Your task to perform on an android device: Search for seafood restaurants on Google Maps Image 0: 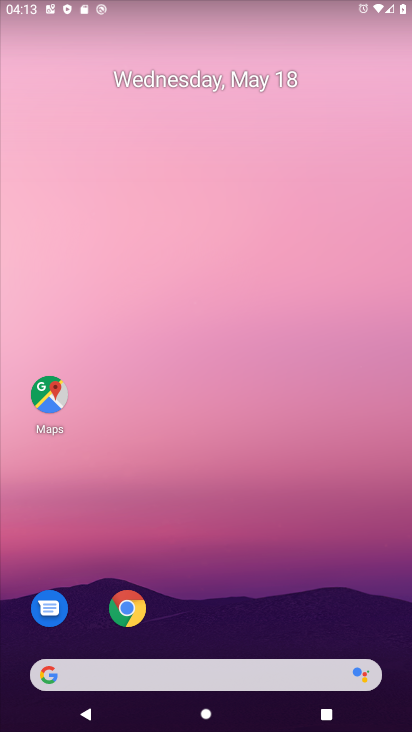
Step 0: click (57, 392)
Your task to perform on an android device: Search for seafood restaurants on Google Maps Image 1: 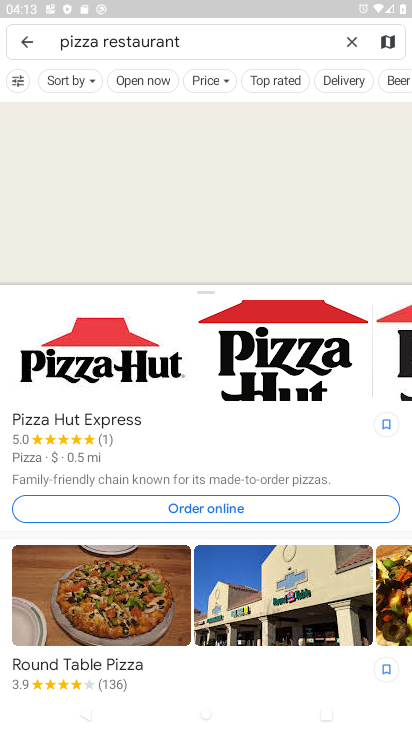
Step 1: click (350, 35)
Your task to perform on an android device: Search for seafood restaurants on Google Maps Image 2: 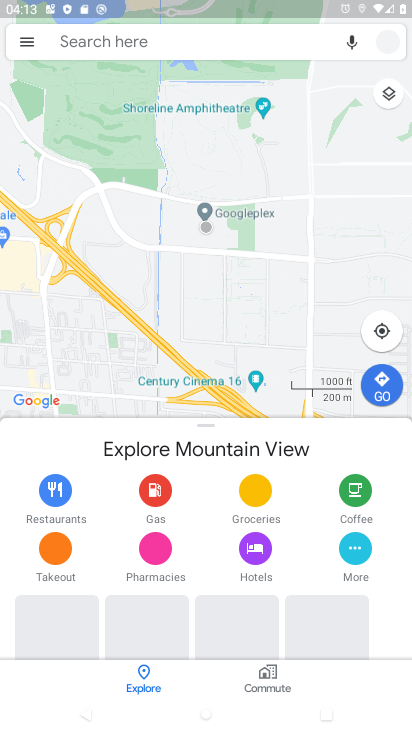
Step 2: click (188, 41)
Your task to perform on an android device: Search for seafood restaurants on Google Maps Image 3: 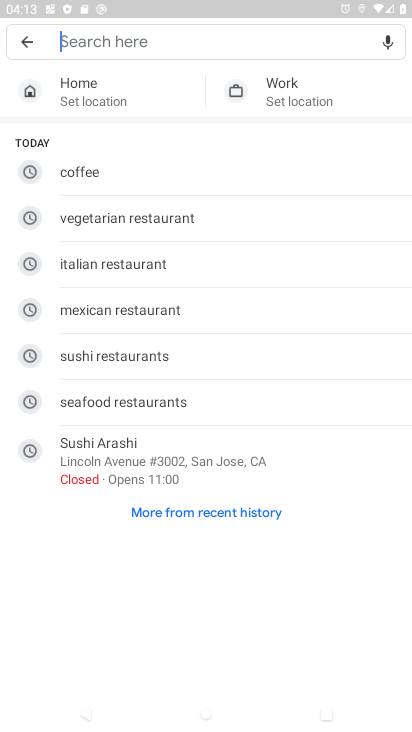
Step 3: click (188, 41)
Your task to perform on an android device: Search for seafood restaurants on Google Maps Image 4: 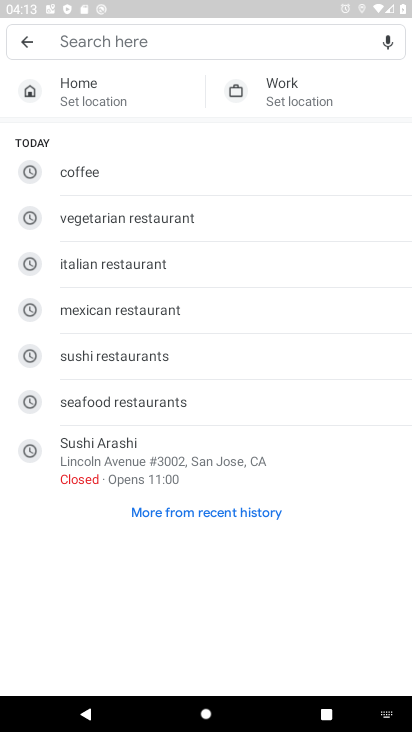
Step 4: click (122, 404)
Your task to perform on an android device: Search for seafood restaurants on Google Maps Image 5: 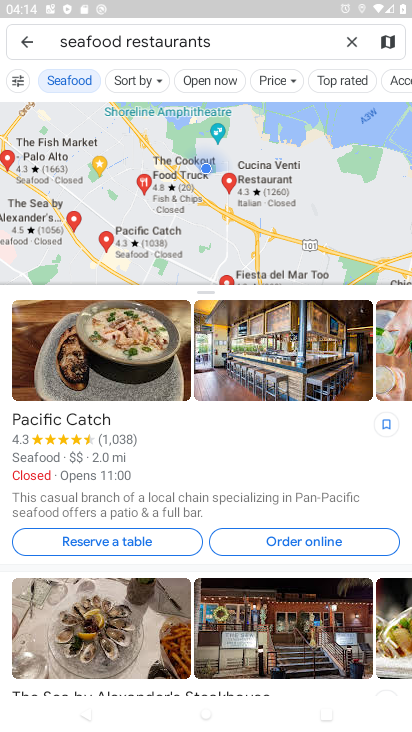
Step 5: task complete